Your task to perform on an android device: Open Youtube and go to the subscriptions tab Image 0: 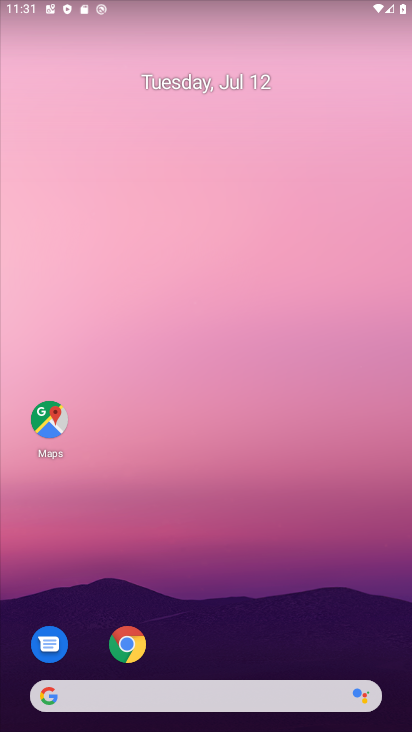
Step 0: drag from (263, 632) to (374, 29)
Your task to perform on an android device: Open Youtube and go to the subscriptions tab Image 1: 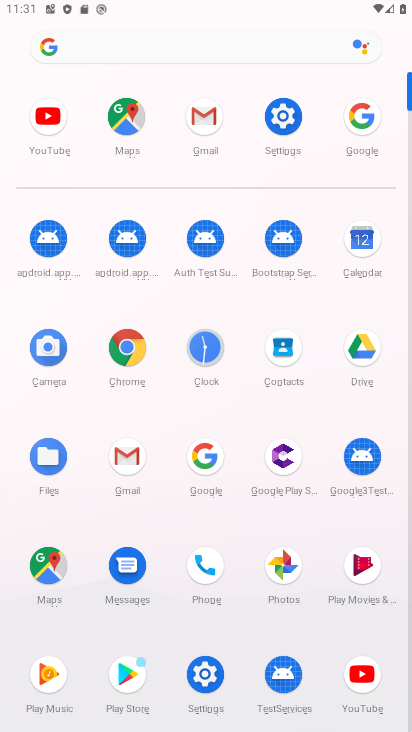
Step 1: click (366, 677)
Your task to perform on an android device: Open Youtube and go to the subscriptions tab Image 2: 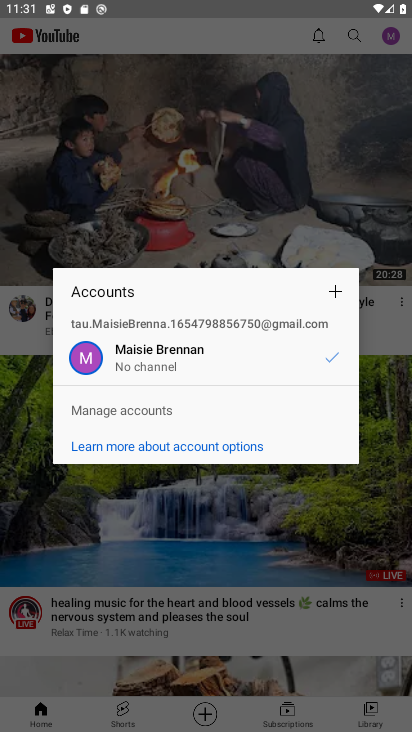
Step 2: drag from (340, 545) to (291, 707)
Your task to perform on an android device: Open Youtube and go to the subscriptions tab Image 3: 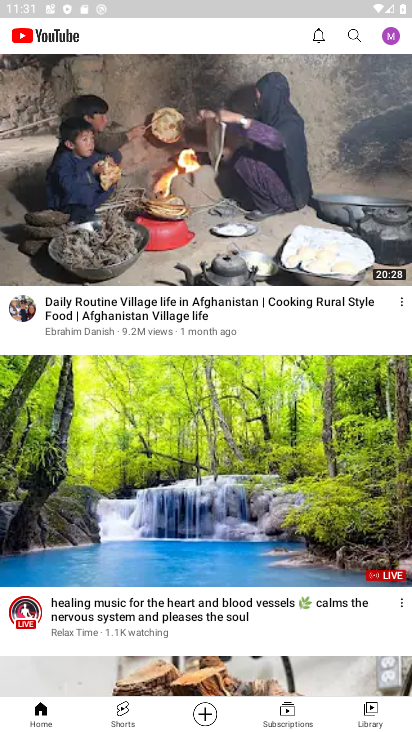
Step 3: click (285, 716)
Your task to perform on an android device: Open Youtube and go to the subscriptions tab Image 4: 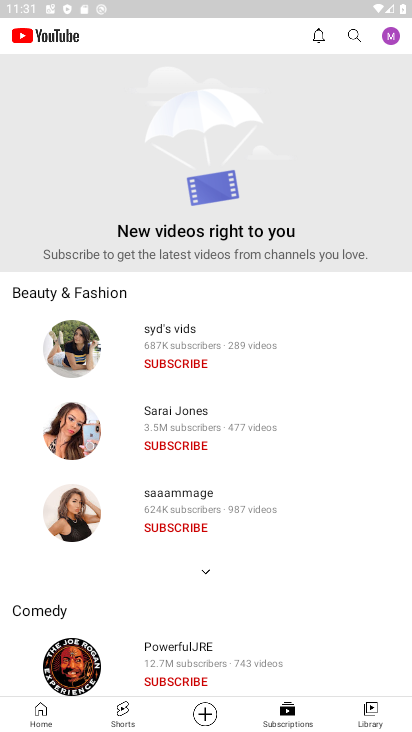
Step 4: task complete